Your task to perform on an android device: Open the calendar and show me this week's events? Image 0: 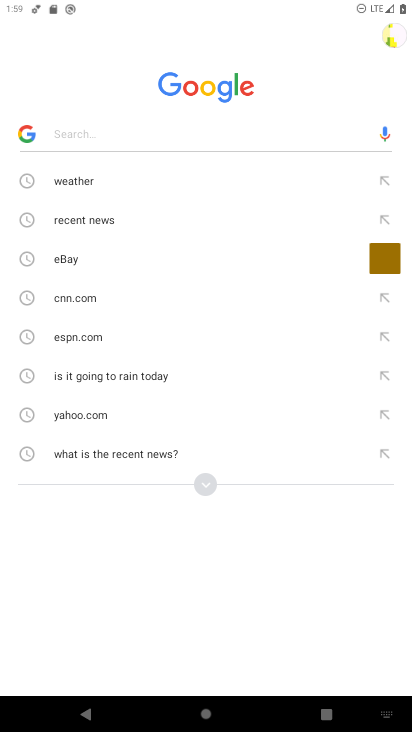
Step 0: press home button
Your task to perform on an android device: Open the calendar and show me this week's events? Image 1: 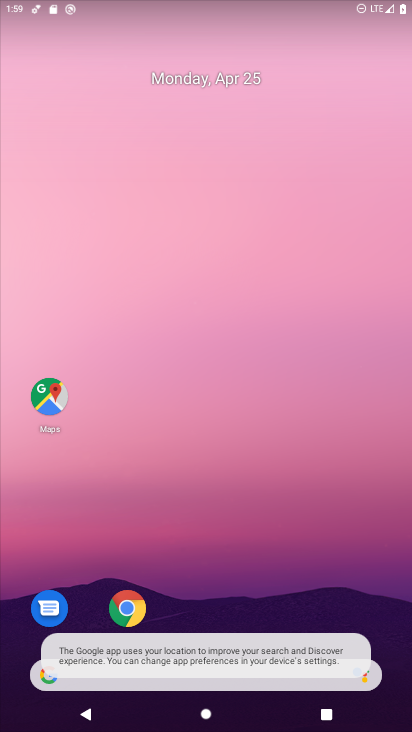
Step 1: drag from (387, 625) to (269, 97)
Your task to perform on an android device: Open the calendar and show me this week's events? Image 2: 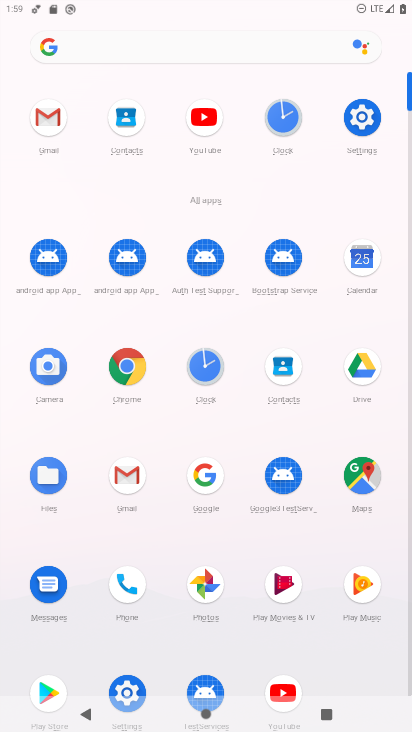
Step 2: click (346, 270)
Your task to perform on an android device: Open the calendar and show me this week's events? Image 3: 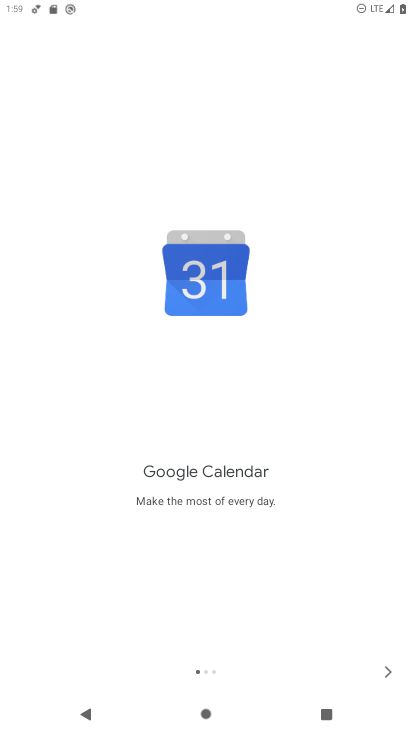
Step 3: click (384, 669)
Your task to perform on an android device: Open the calendar and show me this week's events? Image 4: 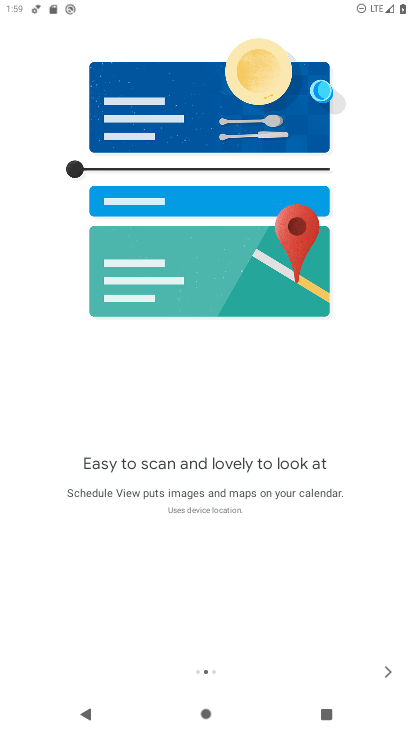
Step 4: click (384, 669)
Your task to perform on an android device: Open the calendar and show me this week's events? Image 5: 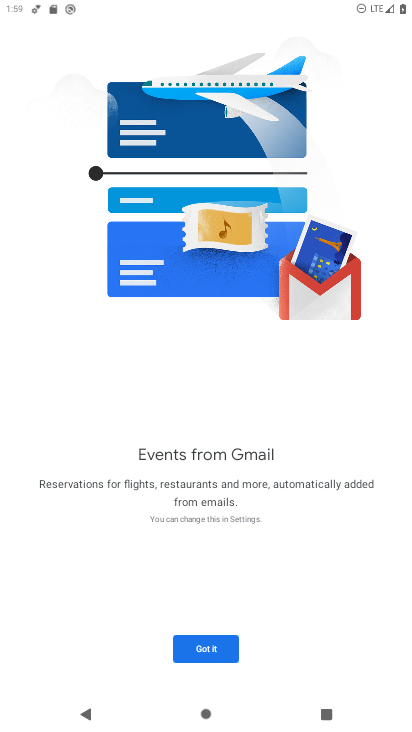
Step 5: click (203, 644)
Your task to perform on an android device: Open the calendar and show me this week's events? Image 6: 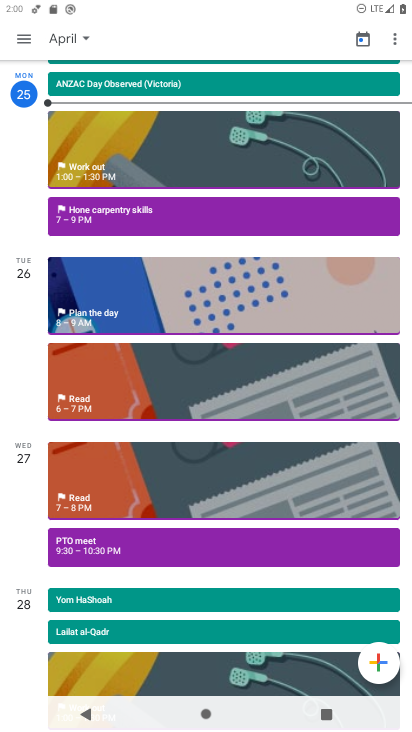
Step 6: click (69, 35)
Your task to perform on an android device: Open the calendar and show me this week's events? Image 7: 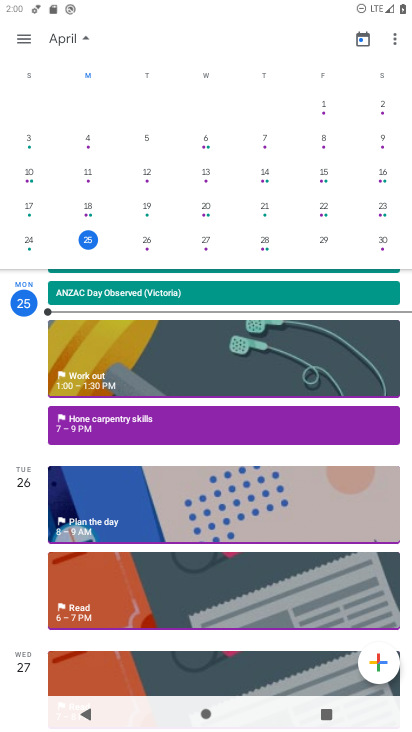
Step 7: click (15, 37)
Your task to perform on an android device: Open the calendar and show me this week's events? Image 8: 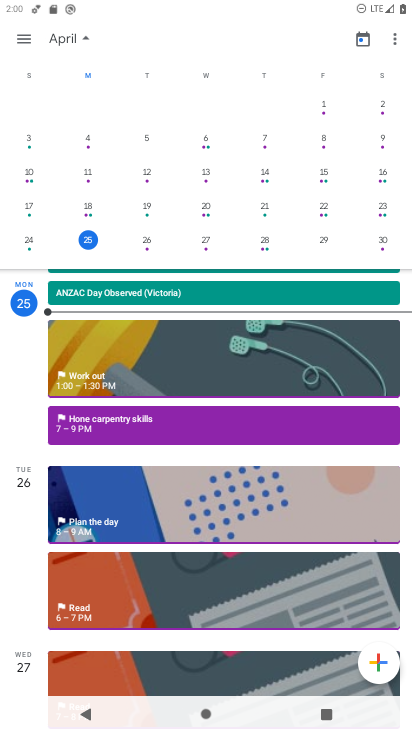
Step 8: click (29, 31)
Your task to perform on an android device: Open the calendar and show me this week's events? Image 9: 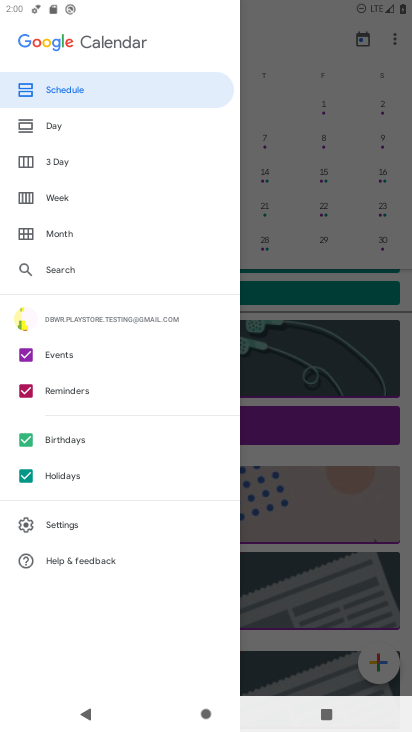
Step 9: click (54, 77)
Your task to perform on an android device: Open the calendar and show me this week's events? Image 10: 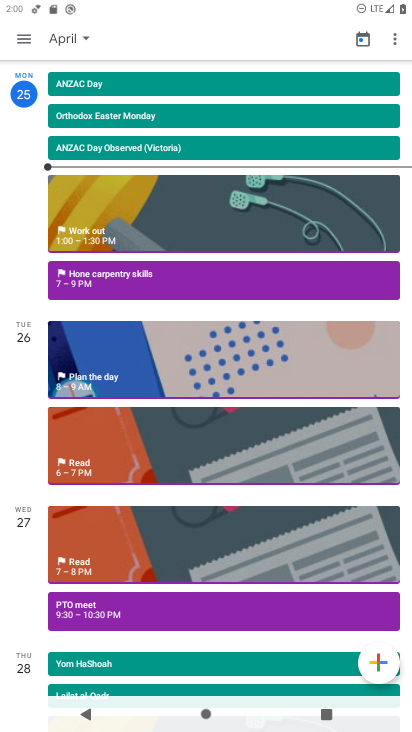
Step 10: task complete